Your task to perform on an android device: Search for vegetarian restaurants on Maps Image 0: 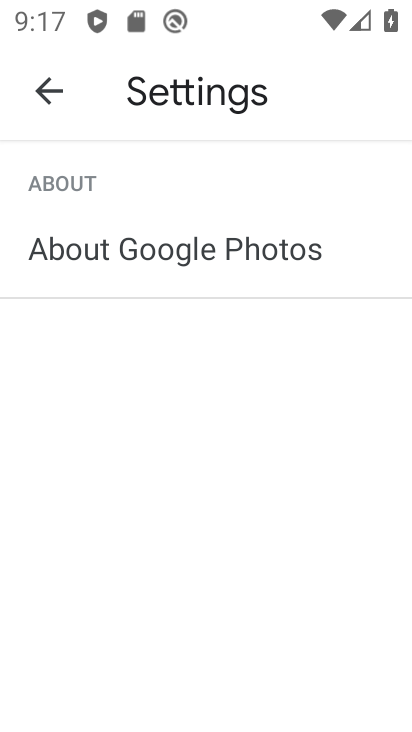
Step 0: press home button
Your task to perform on an android device: Search for vegetarian restaurants on Maps Image 1: 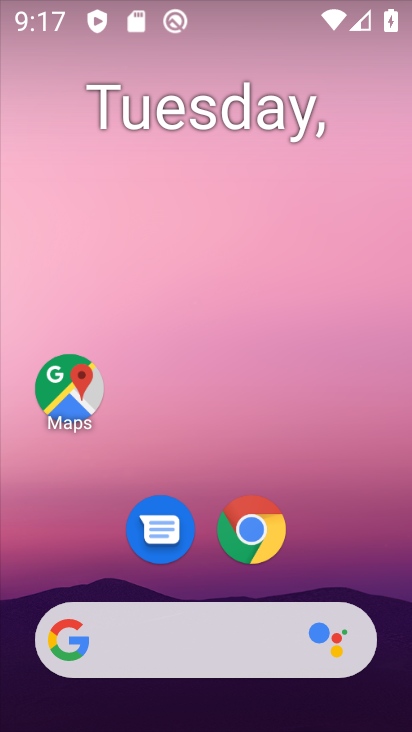
Step 1: click (86, 395)
Your task to perform on an android device: Search for vegetarian restaurants on Maps Image 2: 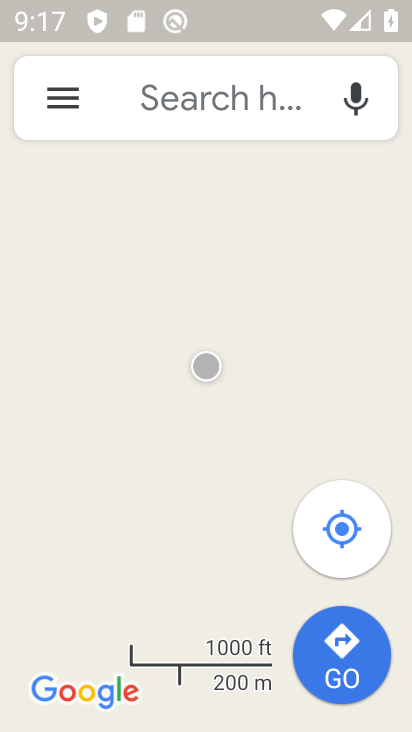
Step 2: click (192, 103)
Your task to perform on an android device: Search for vegetarian restaurants on Maps Image 3: 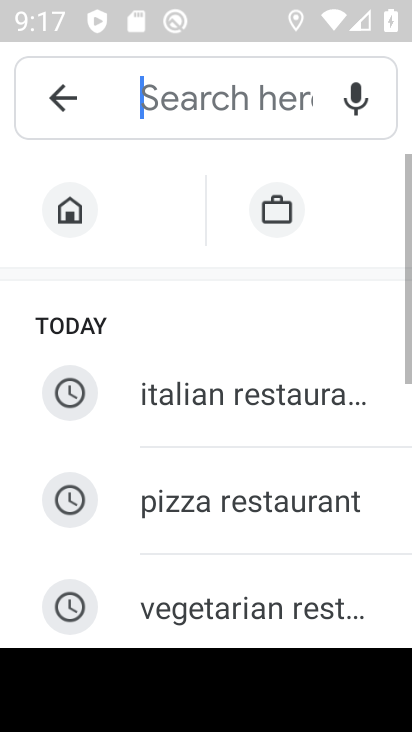
Step 3: type "vegetarian restaurants"
Your task to perform on an android device: Search for vegetarian restaurants on Maps Image 4: 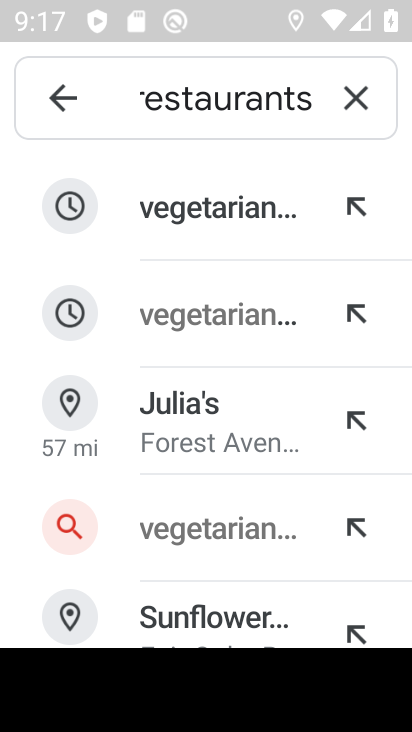
Step 4: click (231, 218)
Your task to perform on an android device: Search for vegetarian restaurants on Maps Image 5: 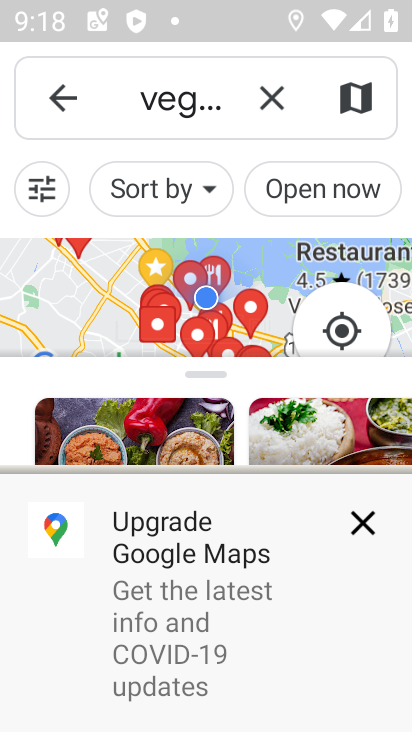
Step 5: task complete